Your task to perform on an android device: Open the Play Movies app and select the watchlist tab. Image 0: 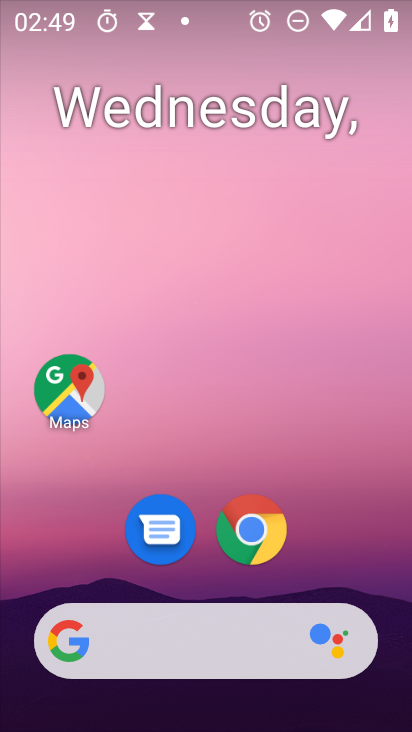
Step 0: drag from (154, 593) to (114, 32)
Your task to perform on an android device: Open the Play Movies app and select the watchlist tab. Image 1: 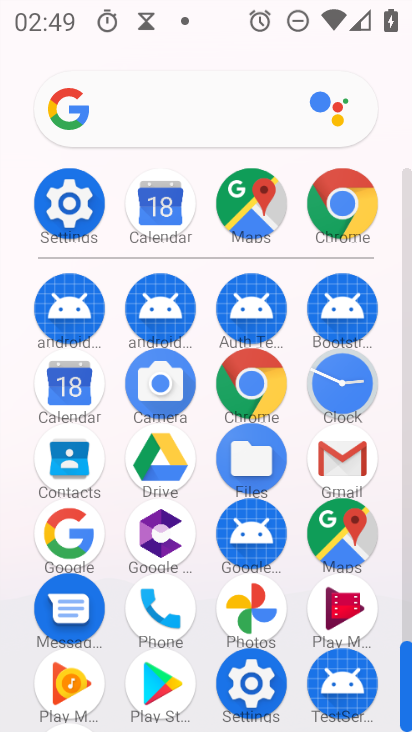
Step 1: drag from (282, 629) to (292, 204)
Your task to perform on an android device: Open the Play Movies app and select the watchlist tab. Image 2: 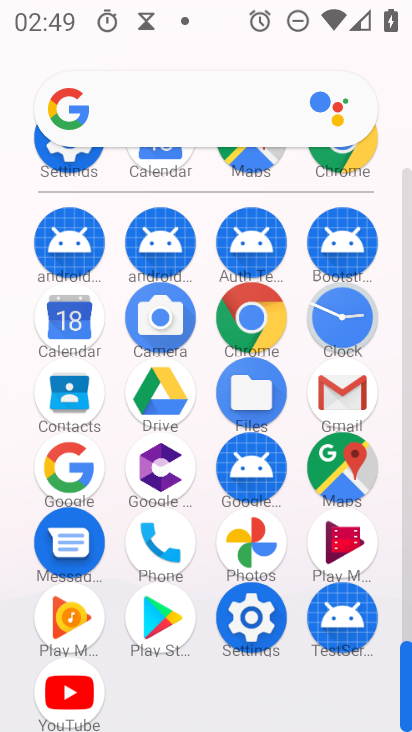
Step 2: click (168, 542)
Your task to perform on an android device: Open the Play Movies app and select the watchlist tab. Image 3: 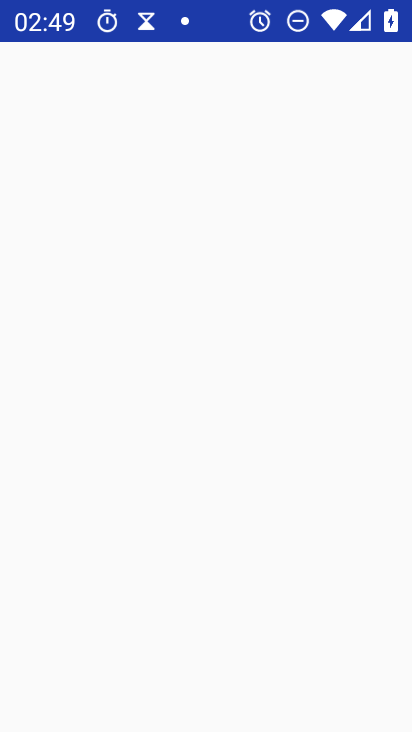
Step 3: press back button
Your task to perform on an android device: Open the Play Movies app and select the watchlist tab. Image 4: 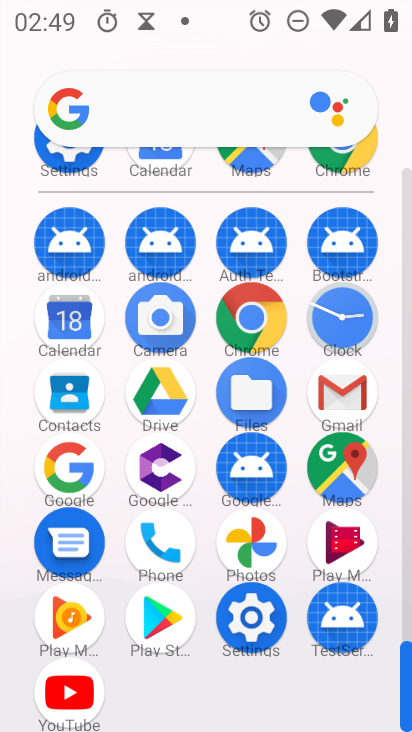
Step 4: click (332, 535)
Your task to perform on an android device: Open the Play Movies app and select the watchlist tab. Image 5: 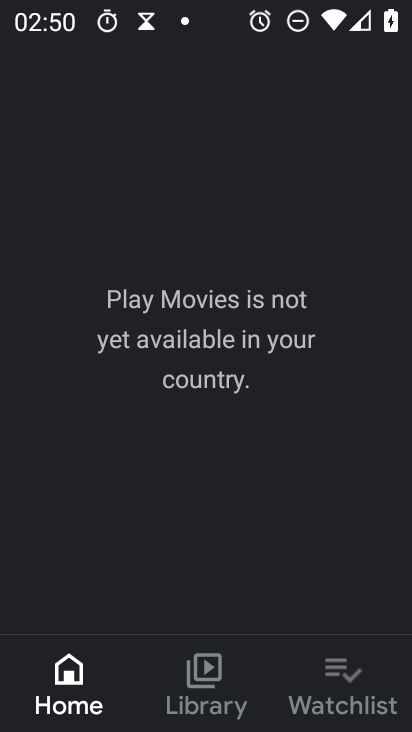
Step 5: click (340, 667)
Your task to perform on an android device: Open the Play Movies app and select the watchlist tab. Image 6: 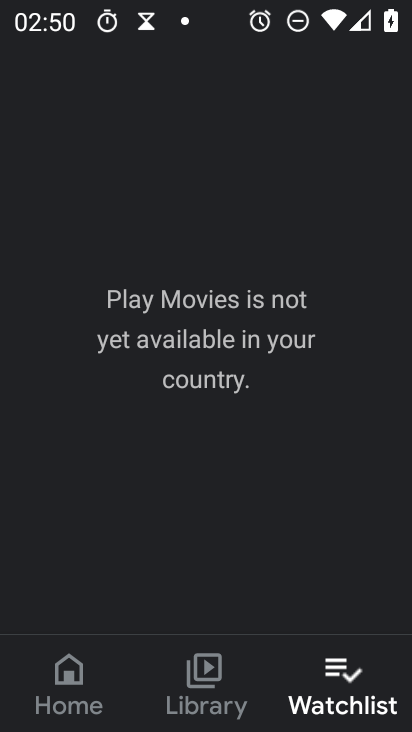
Step 6: task complete